Your task to perform on an android device: open app "DuckDuckGo Privacy Browser" (install if not already installed) and enter user name: "cleaving@outlook.com" and password: "freighters" Image 0: 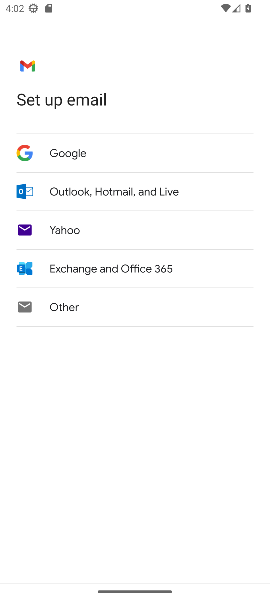
Step 0: press home button
Your task to perform on an android device: open app "DuckDuckGo Privacy Browser" (install if not already installed) and enter user name: "cleaving@outlook.com" and password: "freighters" Image 1: 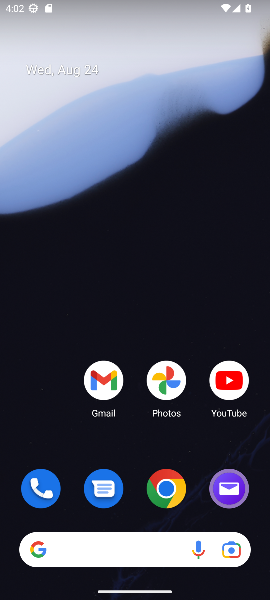
Step 1: drag from (133, 511) to (88, 97)
Your task to perform on an android device: open app "DuckDuckGo Privacy Browser" (install if not already installed) and enter user name: "cleaving@outlook.com" and password: "freighters" Image 2: 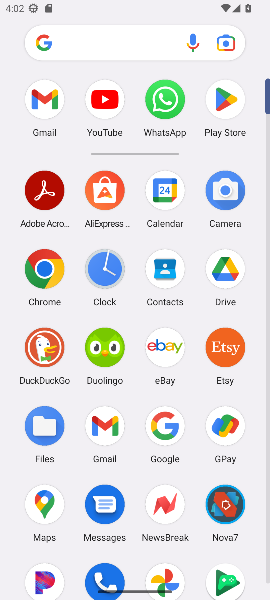
Step 2: click (219, 100)
Your task to perform on an android device: open app "DuckDuckGo Privacy Browser" (install if not already installed) and enter user name: "cleaving@outlook.com" and password: "freighters" Image 3: 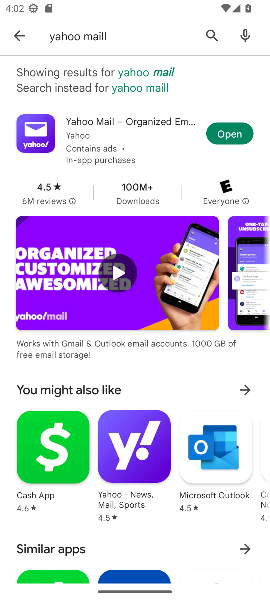
Step 3: click (200, 26)
Your task to perform on an android device: open app "DuckDuckGo Privacy Browser" (install if not already installed) and enter user name: "cleaving@outlook.com" and password: "freighters" Image 4: 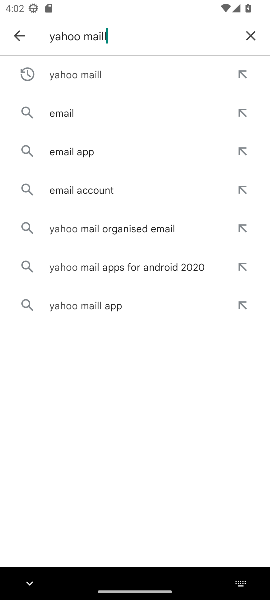
Step 4: click (255, 34)
Your task to perform on an android device: open app "DuckDuckGo Privacy Browser" (install if not already installed) and enter user name: "cleaving@outlook.com" and password: "freighters" Image 5: 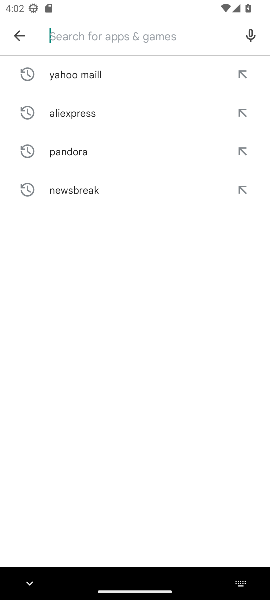
Step 5: type "duck duck go"
Your task to perform on an android device: open app "DuckDuckGo Privacy Browser" (install if not already installed) and enter user name: "cleaving@outlook.com" and password: "freighters" Image 6: 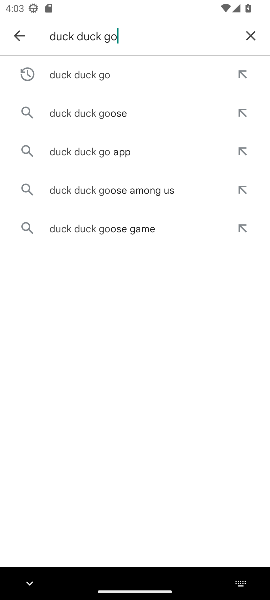
Step 6: click (74, 75)
Your task to perform on an android device: open app "DuckDuckGo Privacy Browser" (install if not already installed) and enter user name: "cleaving@outlook.com" and password: "freighters" Image 7: 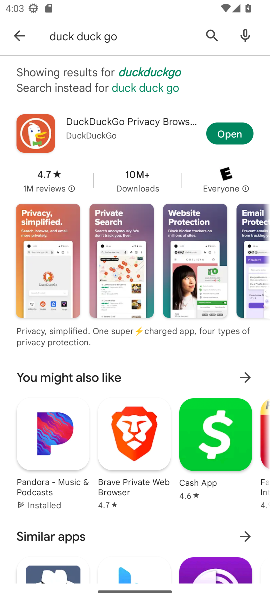
Step 7: click (213, 132)
Your task to perform on an android device: open app "DuckDuckGo Privacy Browser" (install if not already installed) and enter user name: "cleaving@outlook.com" and password: "freighters" Image 8: 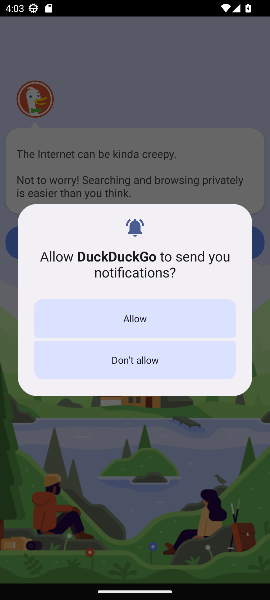
Step 8: click (174, 323)
Your task to perform on an android device: open app "DuckDuckGo Privacy Browser" (install if not already installed) and enter user name: "cleaving@outlook.com" and password: "freighters" Image 9: 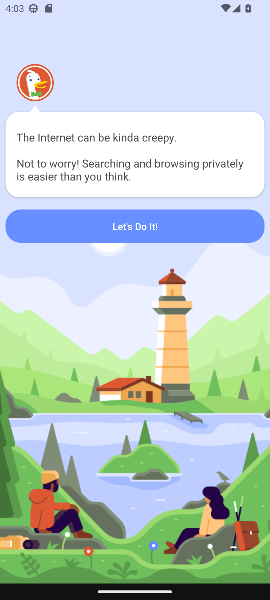
Step 9: click (149, 240)
Your task to perform on an android device: open app "DuckDuckGo Privacy Browser" (install if not already installed) and enter user name: "cleaving@outlook.com" and password: "freighters" Image 10: 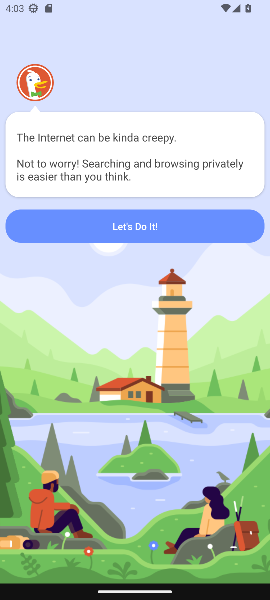
Step 10: task complete